Your task to perform on an android device: Go to Maps Image 0: 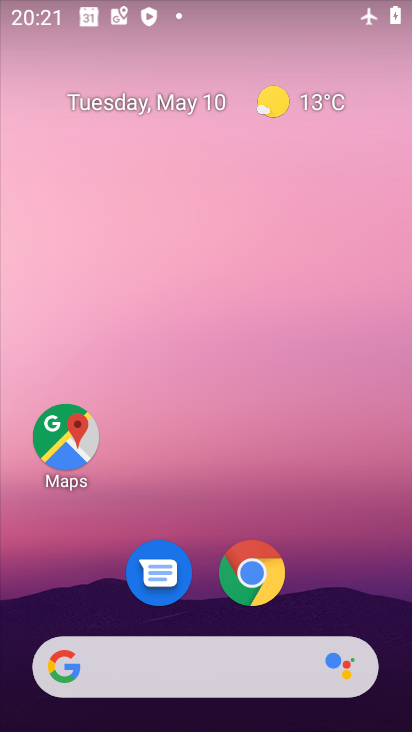
Step 0: click (65, 443)
Your task to perform on an android device: Go to Maps Image 1: 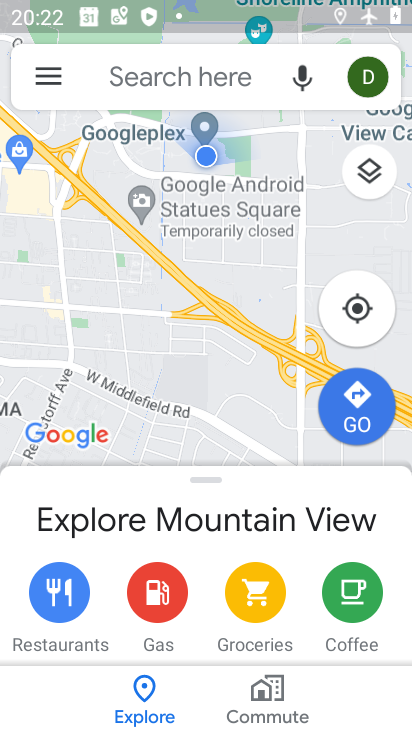
Step 1: task complete